Your task to perform on an android device: What's the weather today? Image 0: 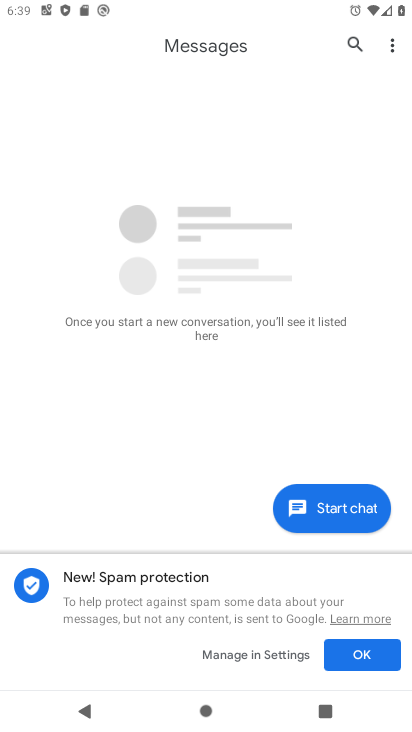
Step 0: press home button
Your task to perform on an android device: What's the weather today? Image 1: 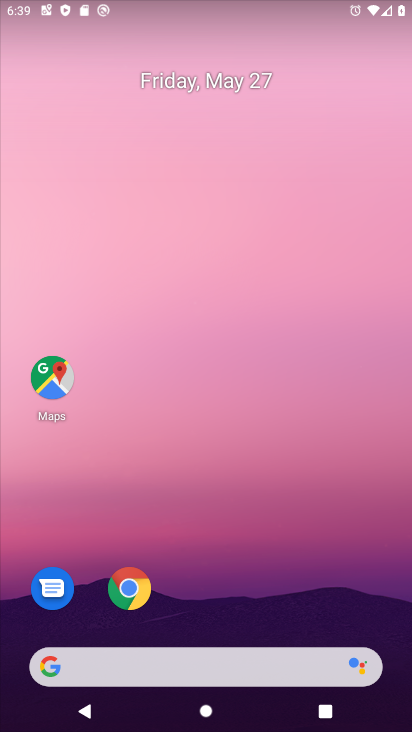
Step 1: drag from (245, 609) to (218, 26)
Your task to perform on an android device: What's the weather today? Image 2: 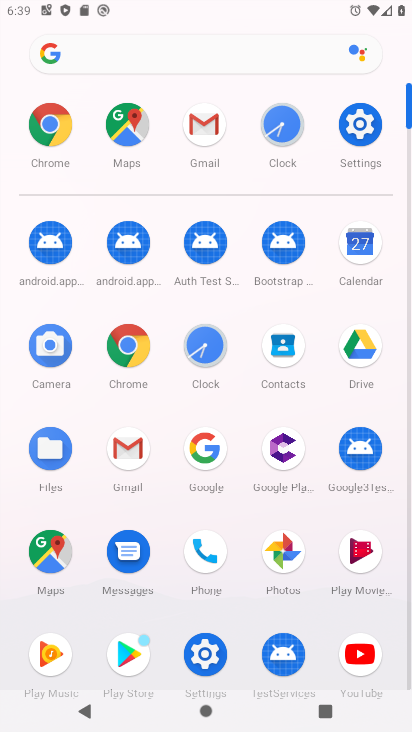
Step 2: click (139, 342)
Your task to perform on an android device: What's the weather today? Image 3: 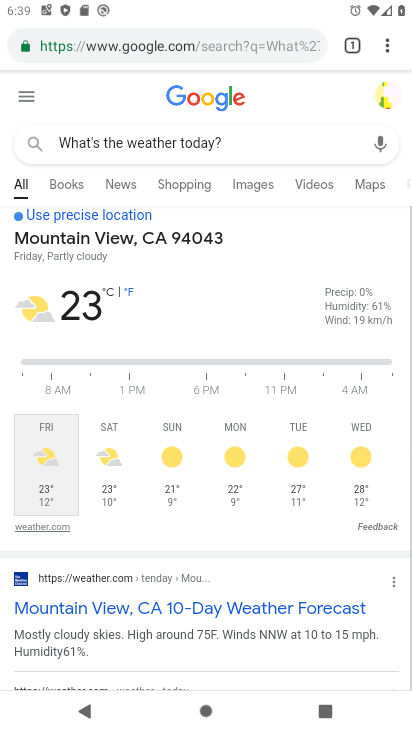
Step 3: click (192, 42)
Your task to perform on an android device: What's the weather today? Image 4: 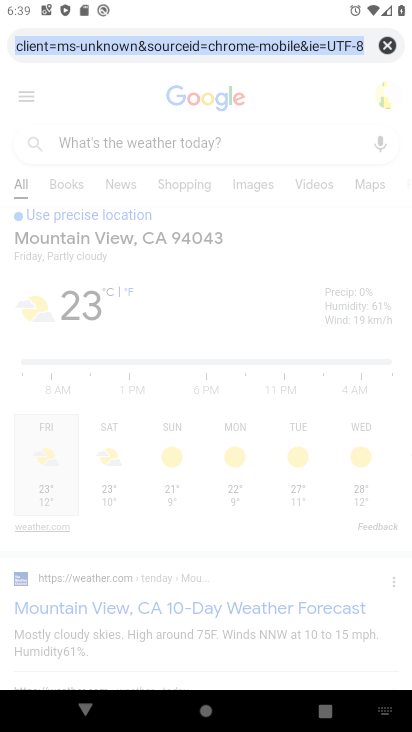
Step 4: click (385, 51)
Your task to perform on an android device: What's the weather today? Image 5: 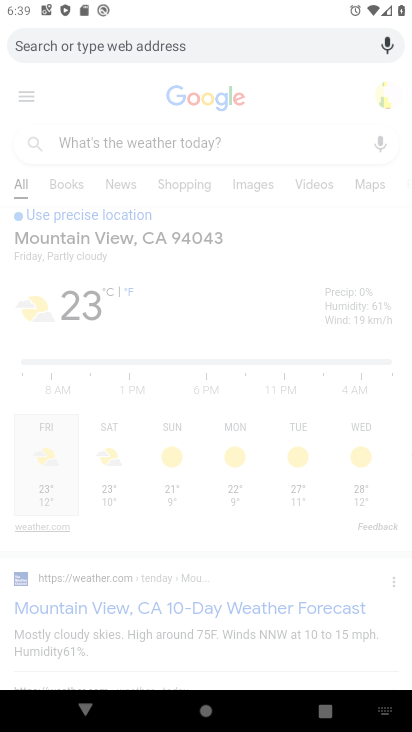
Step 5: type "What's the weather today?"
Your task to perform on an android device: What's the weather today? Image 6: 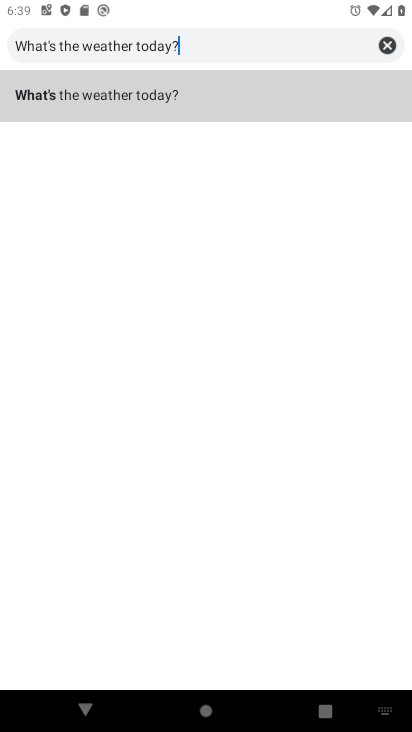
Step 6: type ""
Your task to perform on an android device: What's the weather today? Image 7: 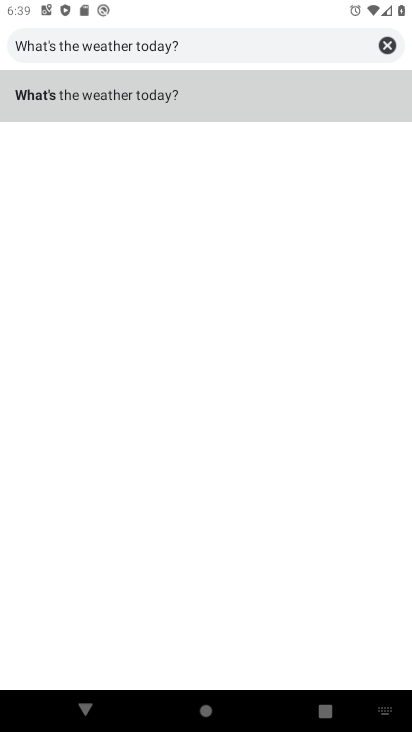
Step 7: click (132, 76)
Your task to perform on an android device: What's the weather today? Image 8: 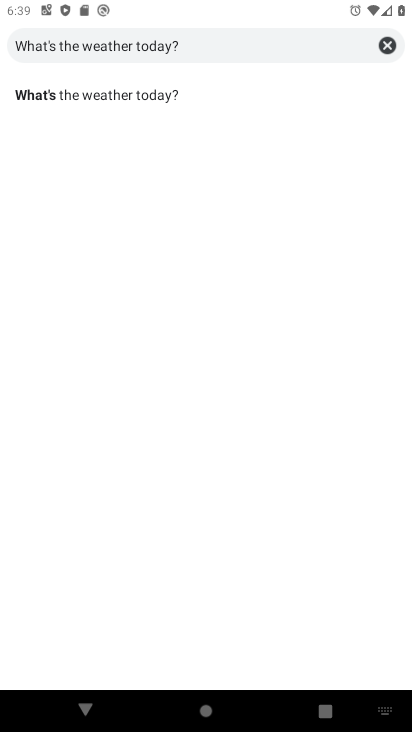
Step 8: click (103, 108)
Your task to perform on an android device: What's the weather today? Image 9: 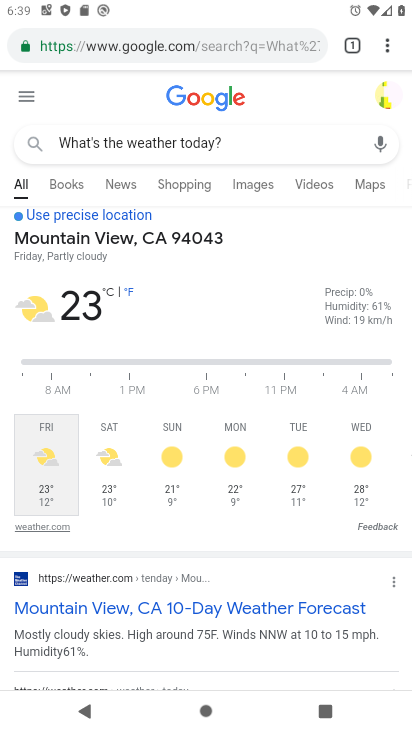
Step 9: task complete